Your task to perform on an android device: see tabs open on other devices in the chrome app Image 0: 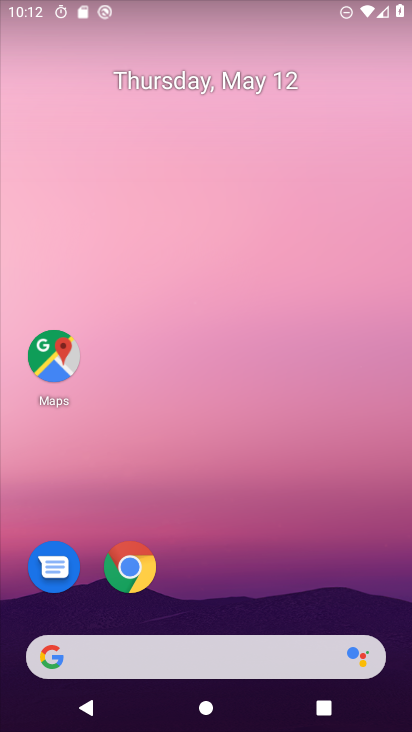
Step 0: drag from (193, 610) to (310, 136)
Your task to perform on an android device: see tabs open on other devices in the chrome app Image 1: 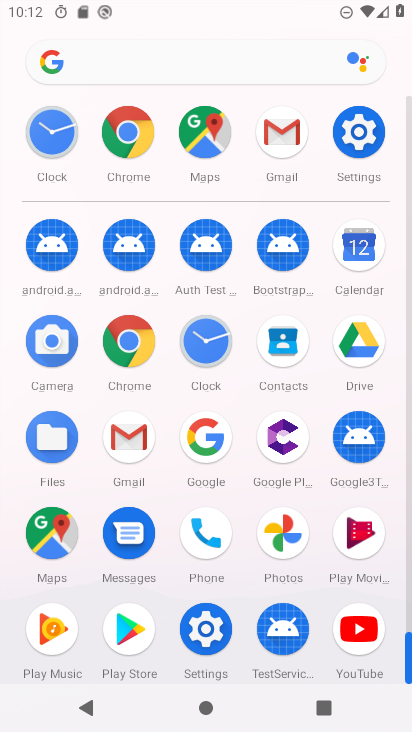
Step 1: click (132, 141)
Your task to perform on an android device: see tabs open on other devices in the chrome app Image 2: 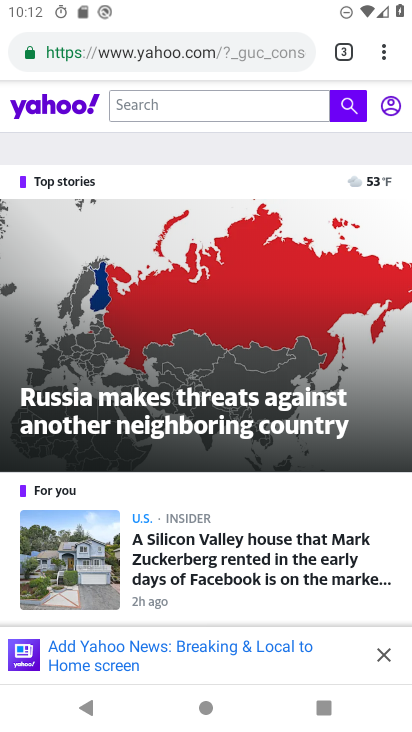
Step 2: task complete